Your task to perform on an android device: Search for macbook pro on bestbuy, select the first entry, add it to the cart, then select checkout. Image 0: 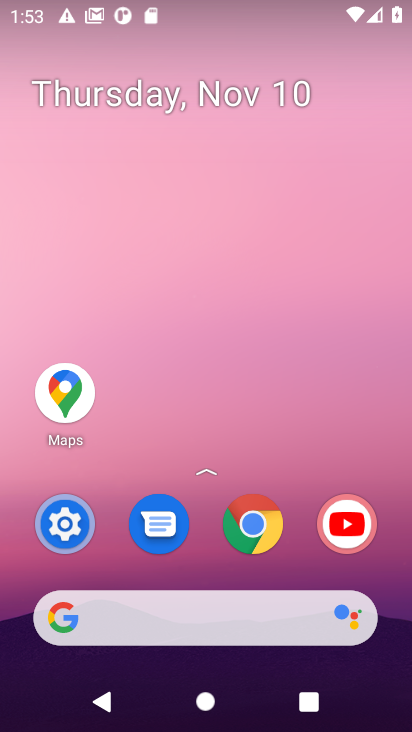
Step 0: click (260, 527)
Your task to perform on an android device: Search for macbook pro on bestbuy, select the first entry, add it to the cart, then select checkout. Image 1: 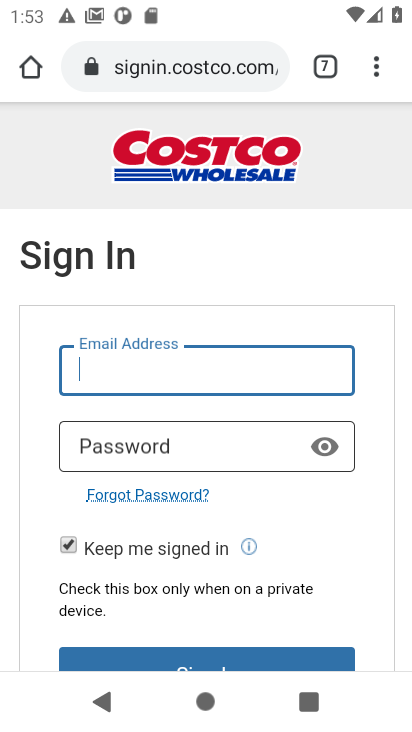
Step 1: click (324, 66)
Your task to perform on an android device: Search for macbook pro on bestbuy, select the first entry, add it to the cart, then select checkout. Image 2: 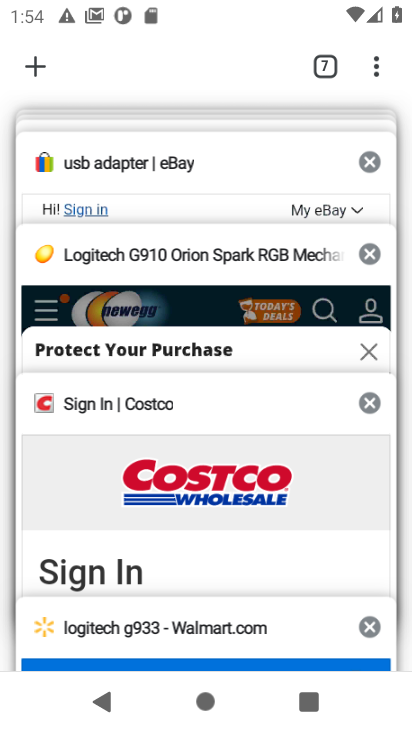
Step 2: drag from (245, 142) to (220, 322)
Your task to perform on an android device: Search for macbook pro on bestbuy, select the first entry, add it to the cart, then select checkout. Image 3: 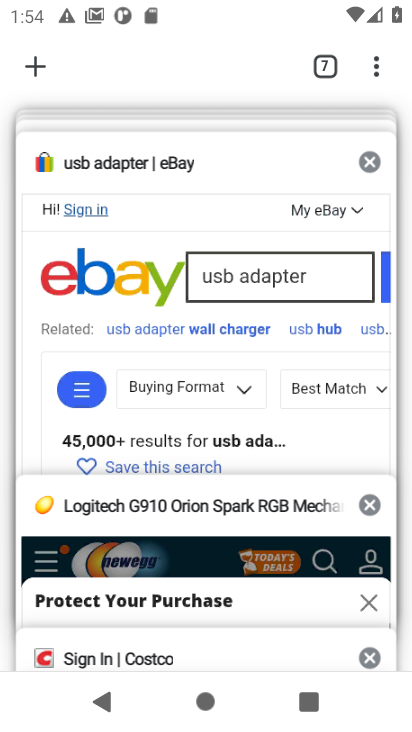
Step 3: drag from (175, 131) to (157, 445)
Your task to perform on an android device: Search for macbook pro on bestbuy, select the first entry, add it to the cart, then select checkout. Image 4: 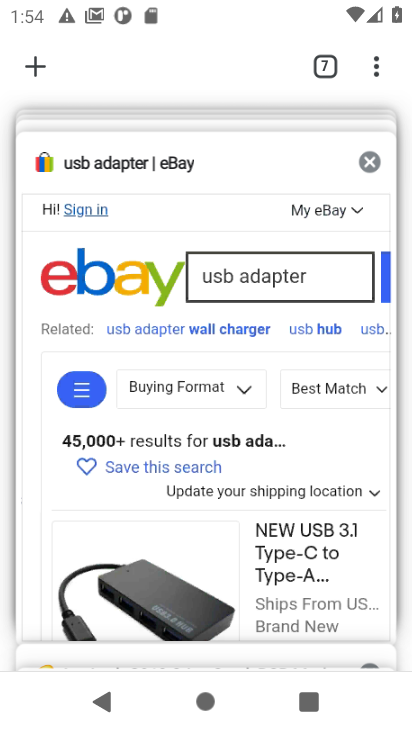
Step 4: drag from (187, 133) to (184, 482)
Your task to perform on an android device: Search for macbook pro on bestbuy, select the first entry, add it to the cart, then select checkout. Image 5: 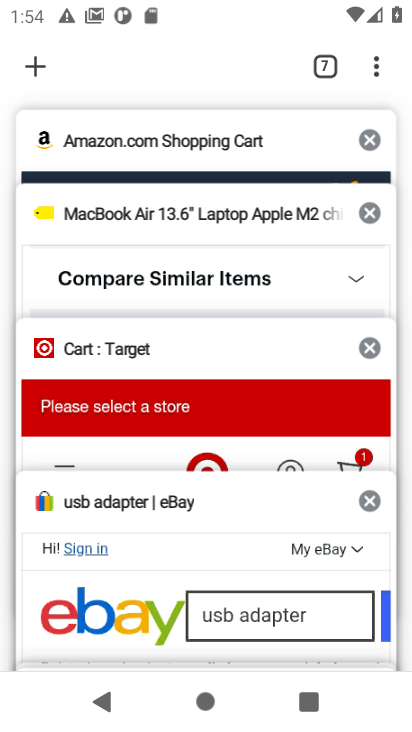
Step 5: click (195, 253)
Your task to perform on an android device: Search for macbook pro on bestbuy, select the first entry, add it to the cart, then select checkout. Image 6: 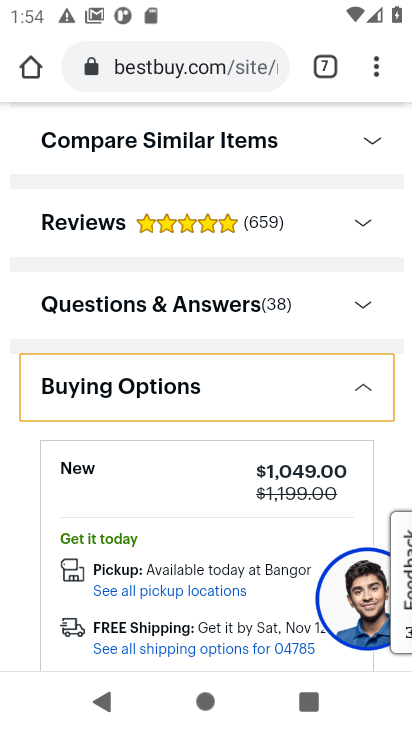
Step 6: drag from (266, 201) to (203, 514)
Your task to perform on an android device: Search for macbook pro on bestbuy, select the first entry, add it to the cart, then select checkout. Image 7: 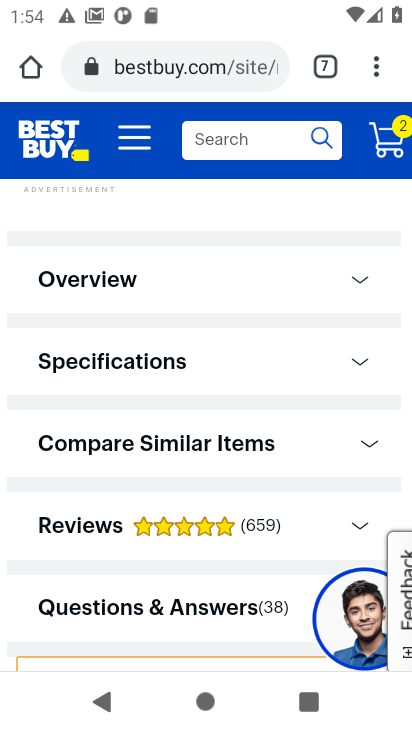
Step 7: click (237, 145)
Your task to perform on an android device: Search for macbook pro on bestbuy, select the first entry, add it to the cart, then select checkout. Image 8: 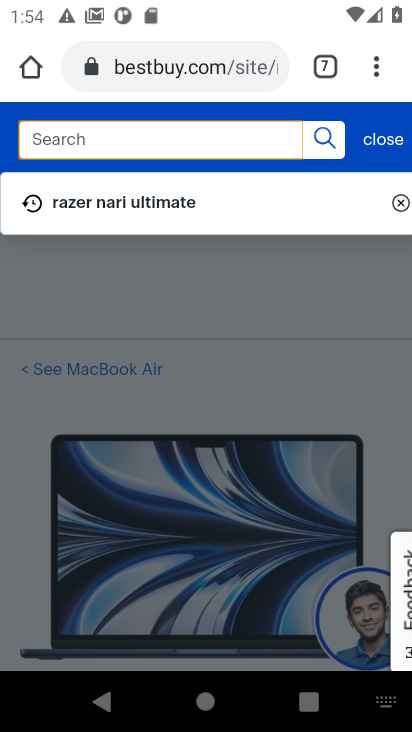
Step 8: type "macbook pro "
Your task to perform on an android device: Search for macbook pro on bestbuy, select the first entry, add it to the cart, then select checkout. Image 9: 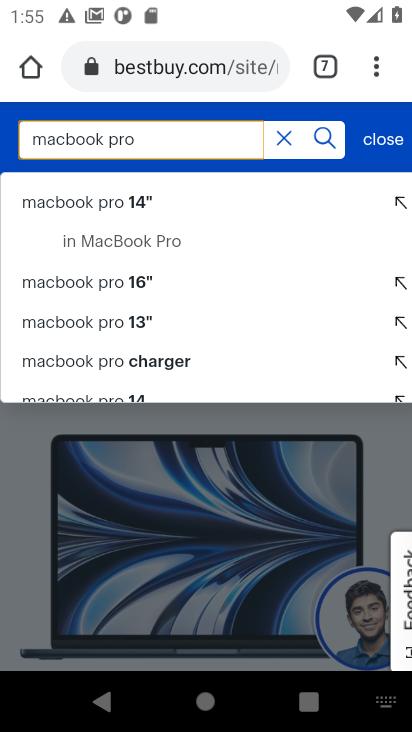
Step 9: click (124, 205)
Your task to perform on an android device: Search for macbook pro on bestbuy, select the first entry, add it to the cart, then select checkout. Image 10: 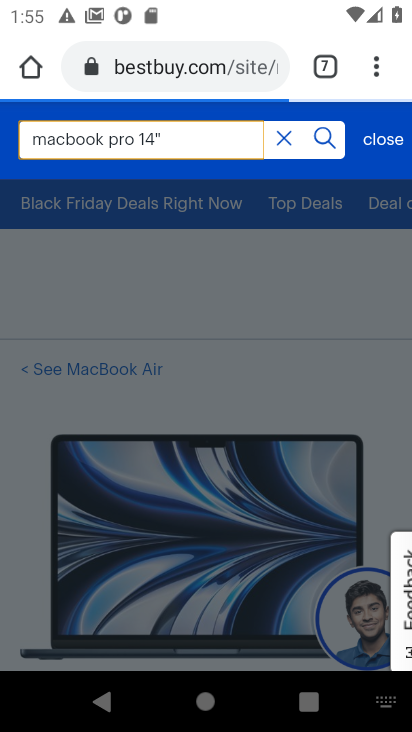
Step 10: click (325, 134)
Your task to perform on an android device: Search for macbook pro on bestbuy, select the first entry, add it to the cart, then select checkout. Image 11: 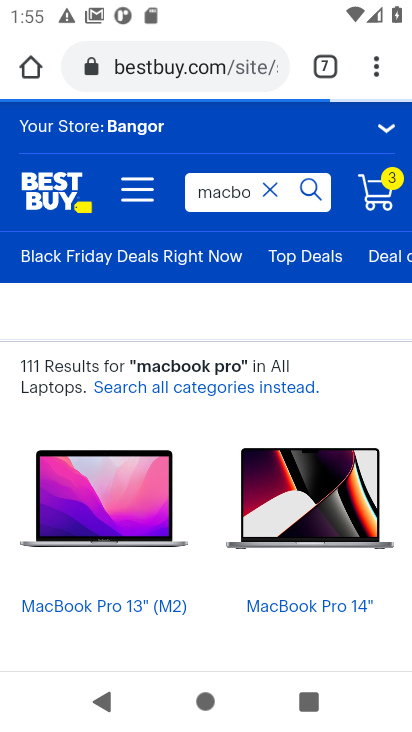
Step 11: click (143, 608)
Your task to perform on an android device: Search for macbook pro on bestbuy, select the first entry, add it to the cart, then select checkout. Image 12: 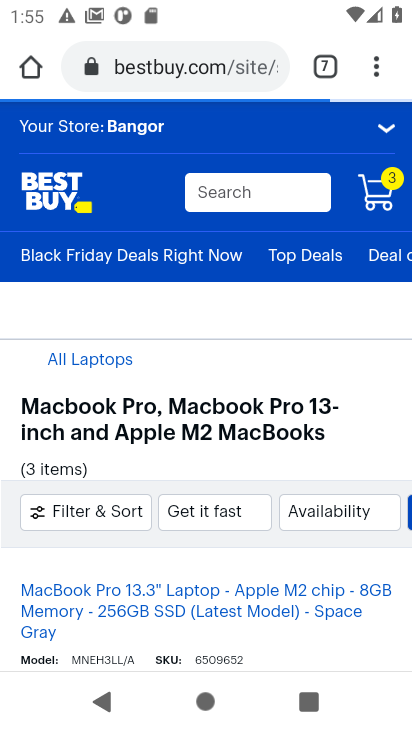
Step 12: click (163, 606)
Your task to perform on an android device: Search for macbook pro on bestbuy, select the first entry, add it to the cart, then select checkout. Image 13: 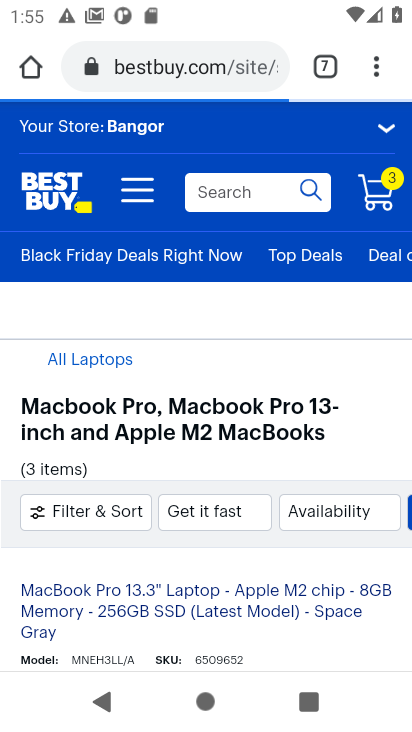
Step 13: drag from (268, 626) to (381, 237)
Your task to perform on an android device: Search for macbook pro on bestbuy, select the first entry, add it to the cart, then select checkout. Image 14: 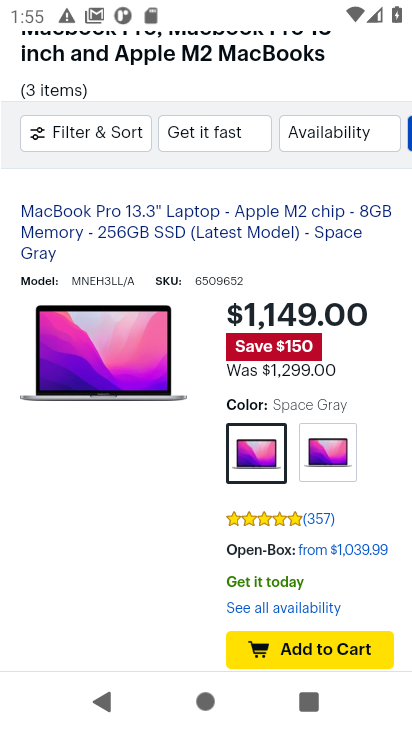
Step 14: click (303, 651)
Your task to perform on an android device: Search for macbook pro on bestbuy, select the first entry, add it to the cart, then select checkout. Image 15: 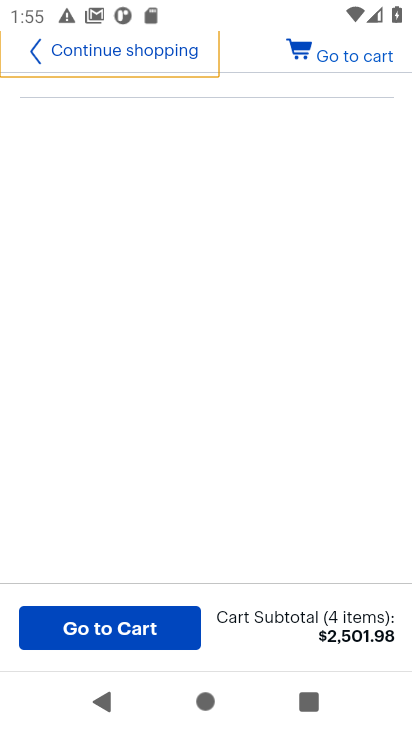
Step 15: drag from (349, 76) to (407, 640)
Your task to perform on an android device: Search for macbook pro on bestbuy, select the first entry, add it to the cart, then select checkout. Image 16: 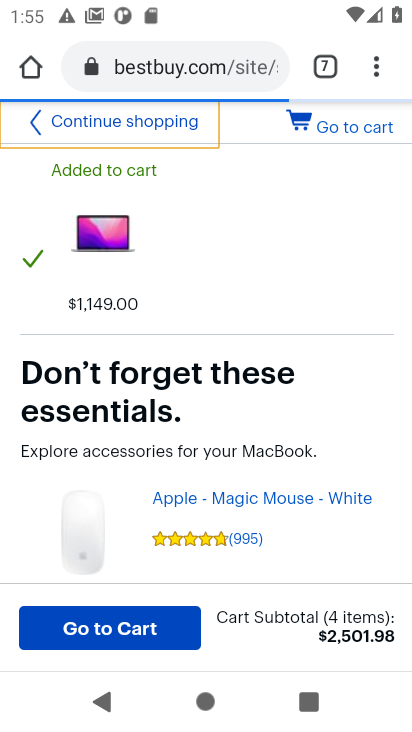
Step 16: click (357, 128)
Your task to perform on an android device: Search for macbook pro on bestbuy, select the first entry, add it to the cart, then select checkout. Image 17: 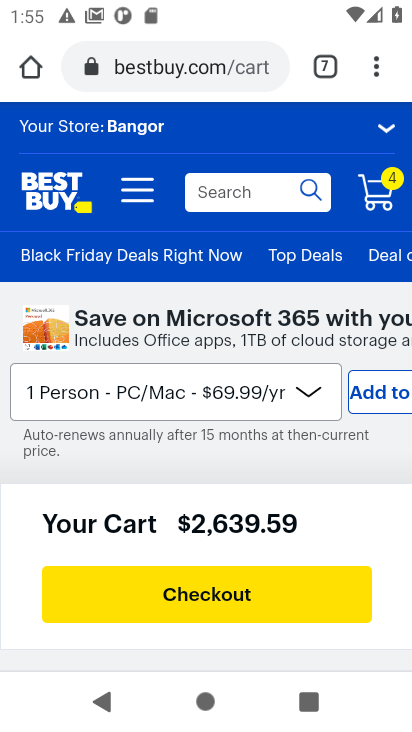
Step 17: click (254, 600)
Your task to perform on an android device: Search for macbook pro on bestbuy, select the first entry, add it to the cart, then select checkout. Image 18: 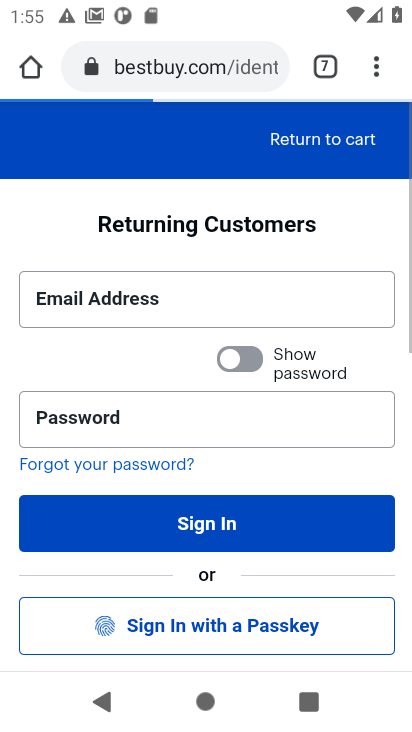
Step 18: task complete